Your task to perform on an android device: Turn on the flashlight Image 0: 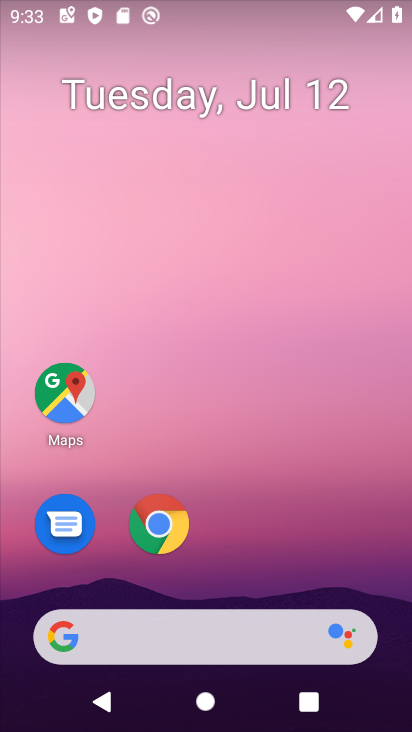
Step 0: drag from (260, 547) to (270, 22)
Your task to perform on an android device: Turn on the flashlight Image 1: 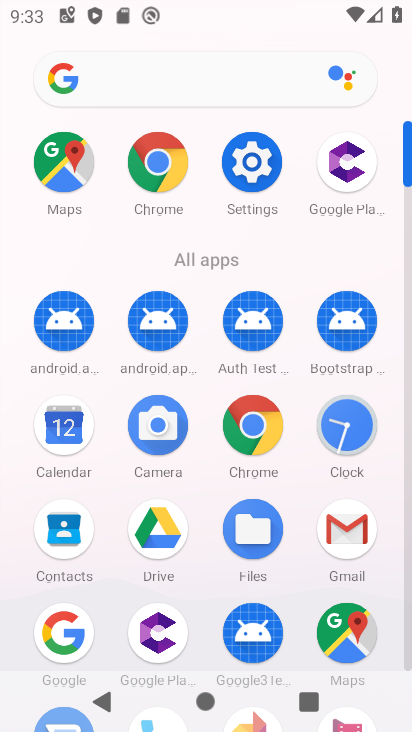
Step 1: click (257, 177)
Your task to perform on an android device: Turn on the flashlight Image 2: 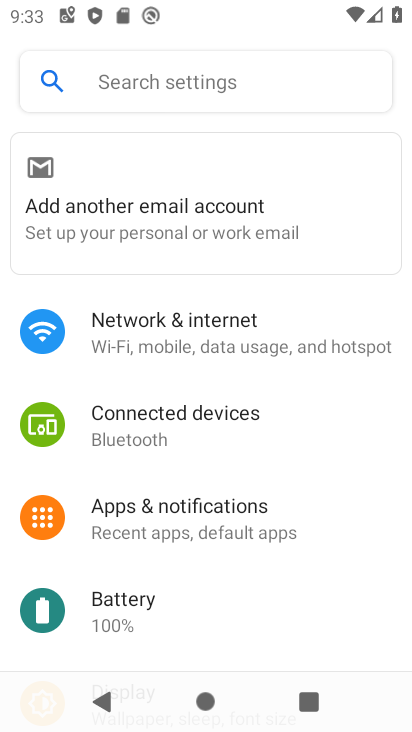
Step 2: click (230, 81)
Your task to perform on an android device: Turn on the flashlight Image 3: 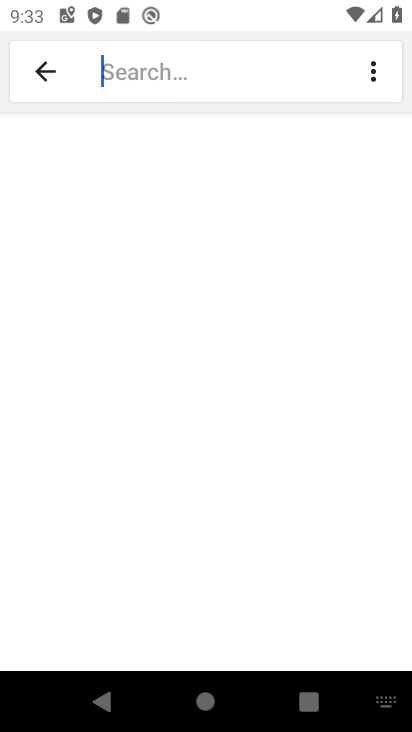
Step 3: type "Flashlight"
Your task to perform on an android device: Turn on the flashlight Image 4: 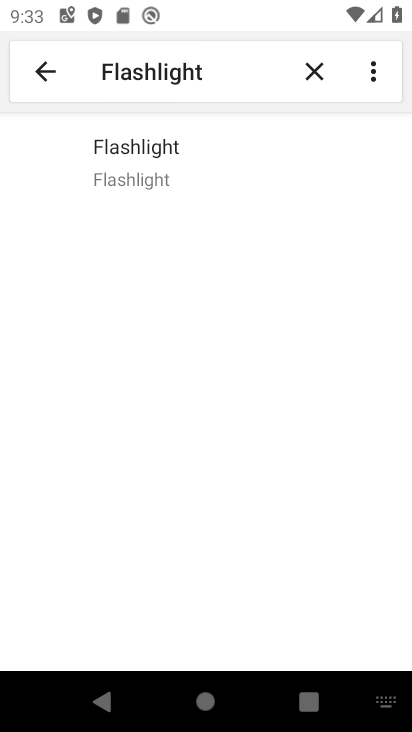
Step 4: click (139, 145)
Your task to perform on an android device: Turn on the flashlight Image 5: 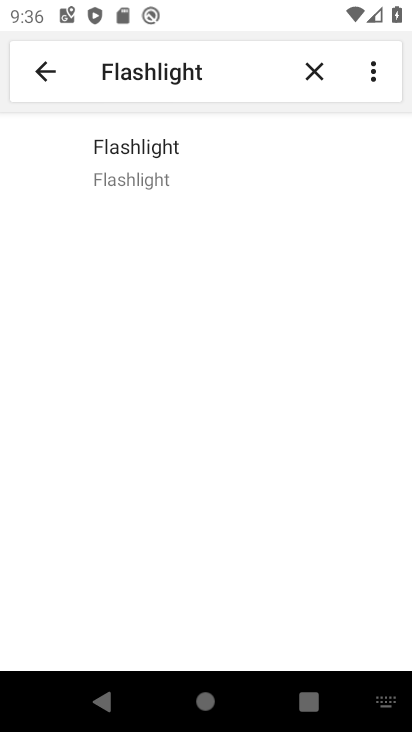
Step 5: task complete